Your task to perform on an android device: Open the calendar and show me this week's events? Image 0: 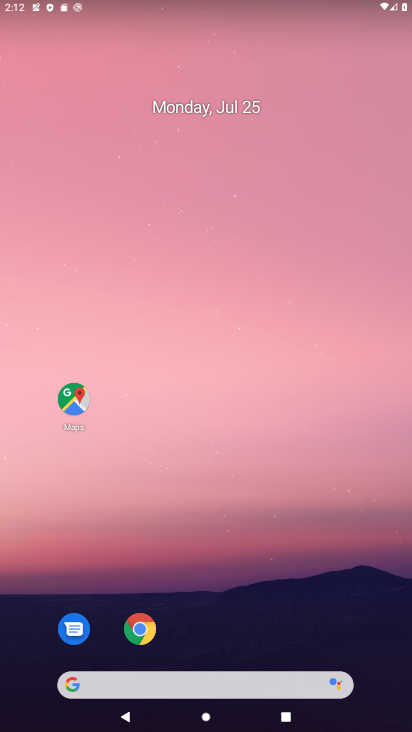
Step 0: drag from (168, 651) to (244, 354)
Your task to perform on an android device: Open the calendar and show me this week's events? Image 1: 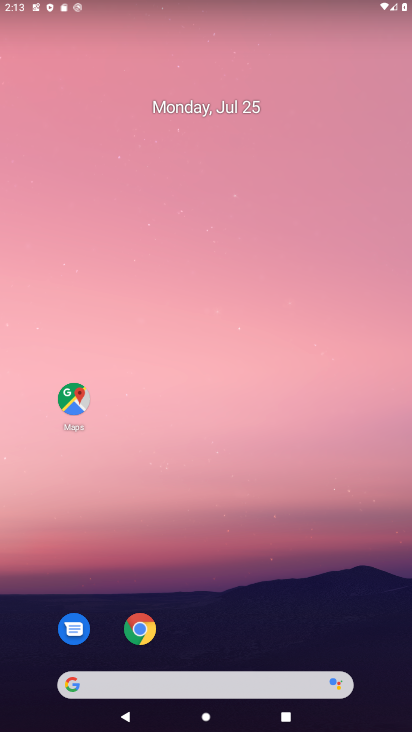
Step 1: drag from (234, 320) to (267, 169)
Your task to perform on an android device: Open the calendar and show me this week's events? Image 2: 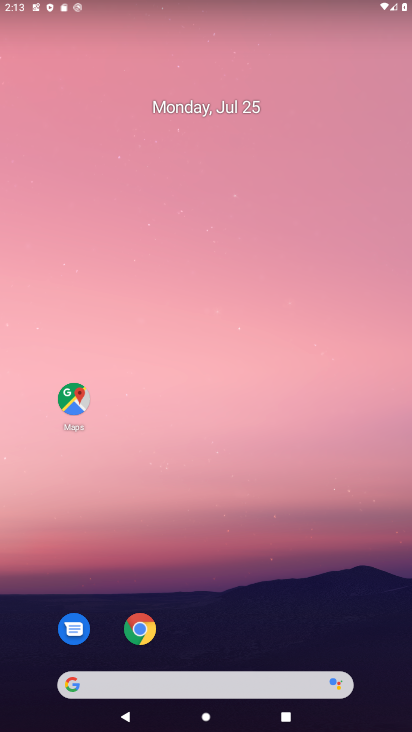
Step 2: drag from (200, 598) to (278, 152)
Your task to perform on an android device: Open the calendar and show me this week's events? Image 3: 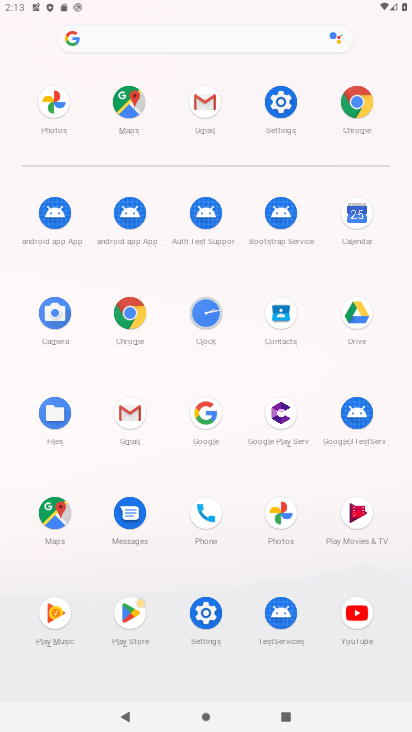
Step 3: click (349, 209)
Your task to perform on an android device: Open the calendar and show me this week's events? Image 4: 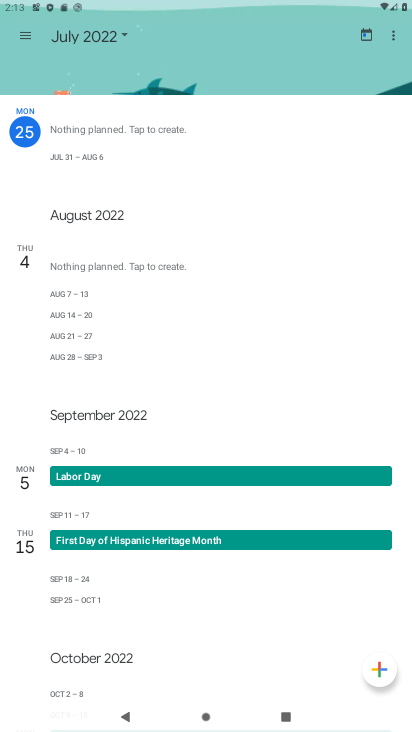
Step 4: click (85, 26)
Your task to perform on an android device: Open the calendar and show me this week's events? Image 5: 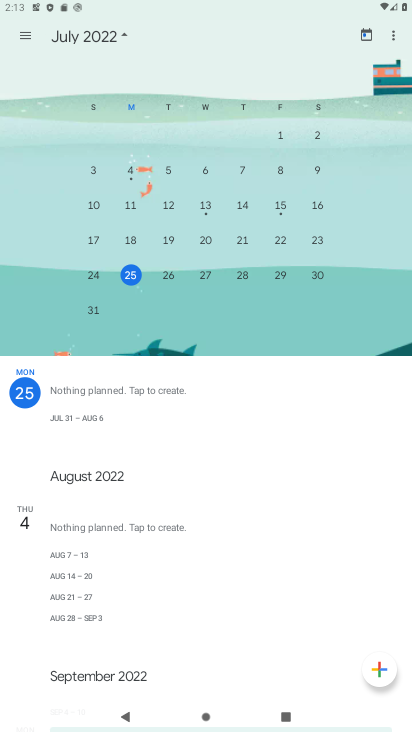
Step 5: click (312, 276)
Your task to perform on an android device: Open the calendar and show me this week's events? Image 6: 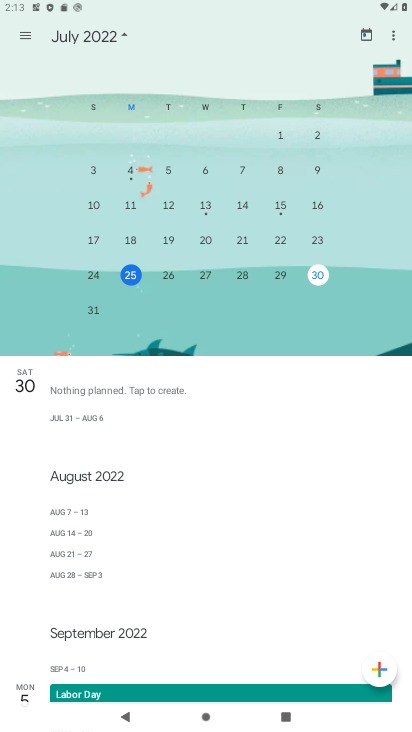
Step 6: task complete